Your task to perform on an android device: Search for Mexican restaurants on Maps Image 0: 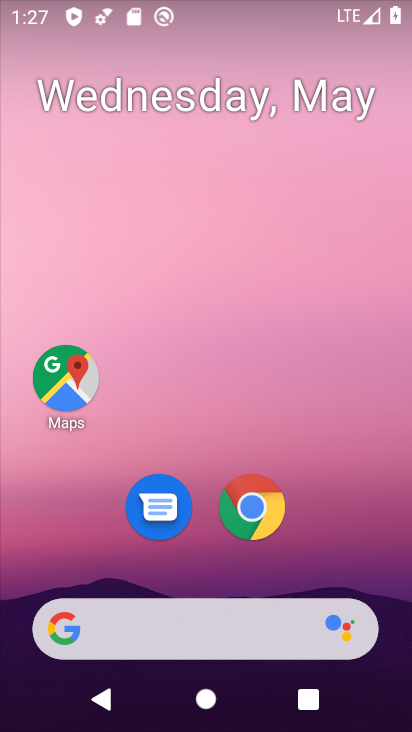
Step 0: click (67, 362)
Your task to perform on an android device: Search for Mexican restaurants on Maps Image 1: 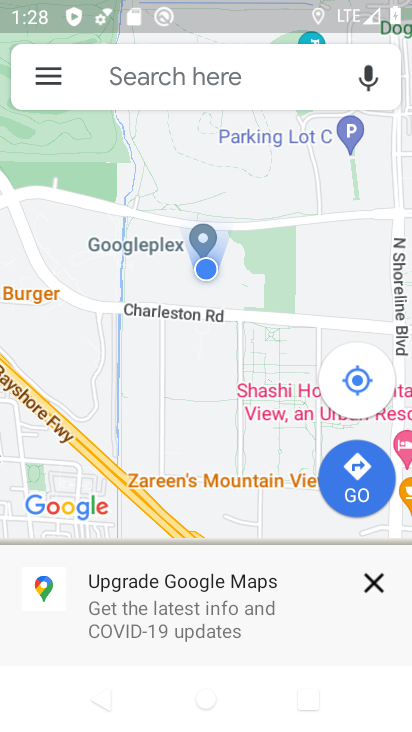
Step 1: click (179, 79)
Your task to perform on an android device: Search for Mexican restaurants on Maps Image 2: 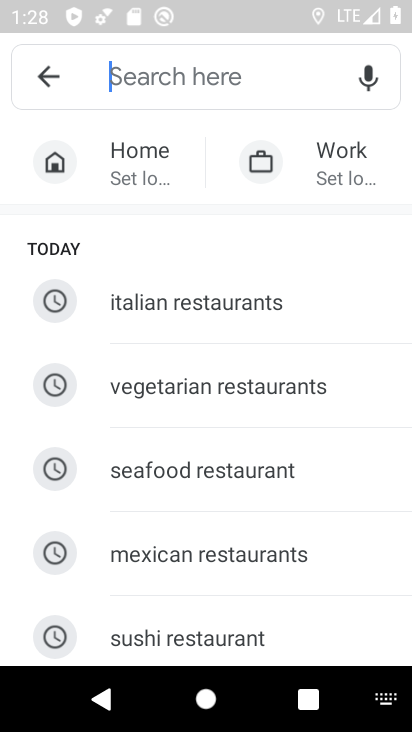
Step 2: click (296, 564)
Your task to perform on an android device: Search for Mexican restaurants on Maps Image 3: 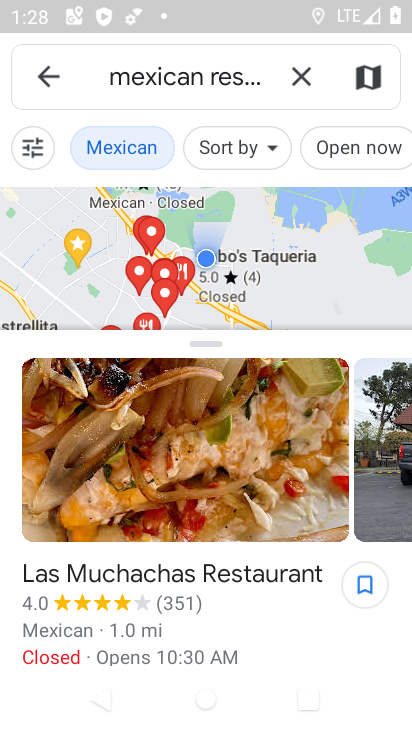
Step 3: task complete